Your task to perform on an android device: Search for apple airpods on bestbuy, select the first entry, add it to the cart, then select checkout. Image 0: 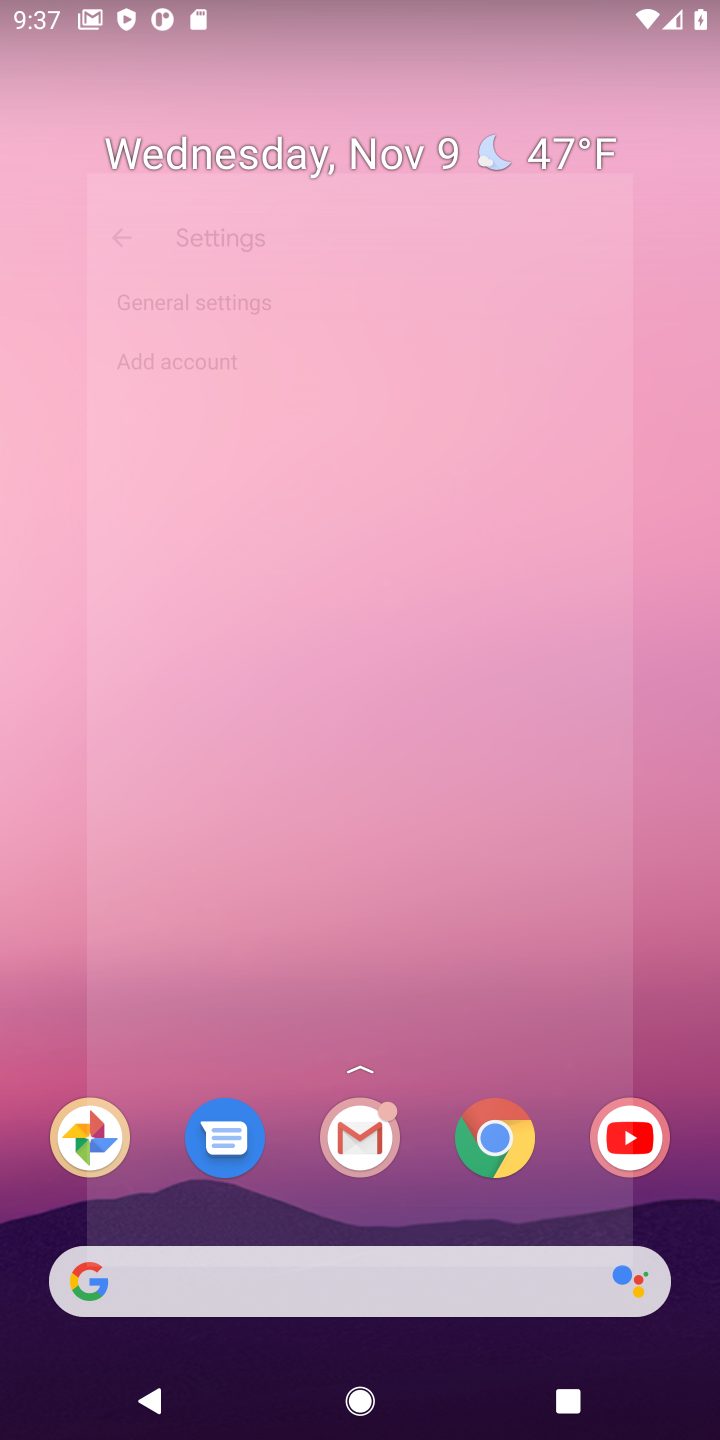
Step 0: press home button
Your task to perform on an android device: Search for apple airpods on bestbuy, select the first entry, add it to the cart, then select checkout. Image 1: 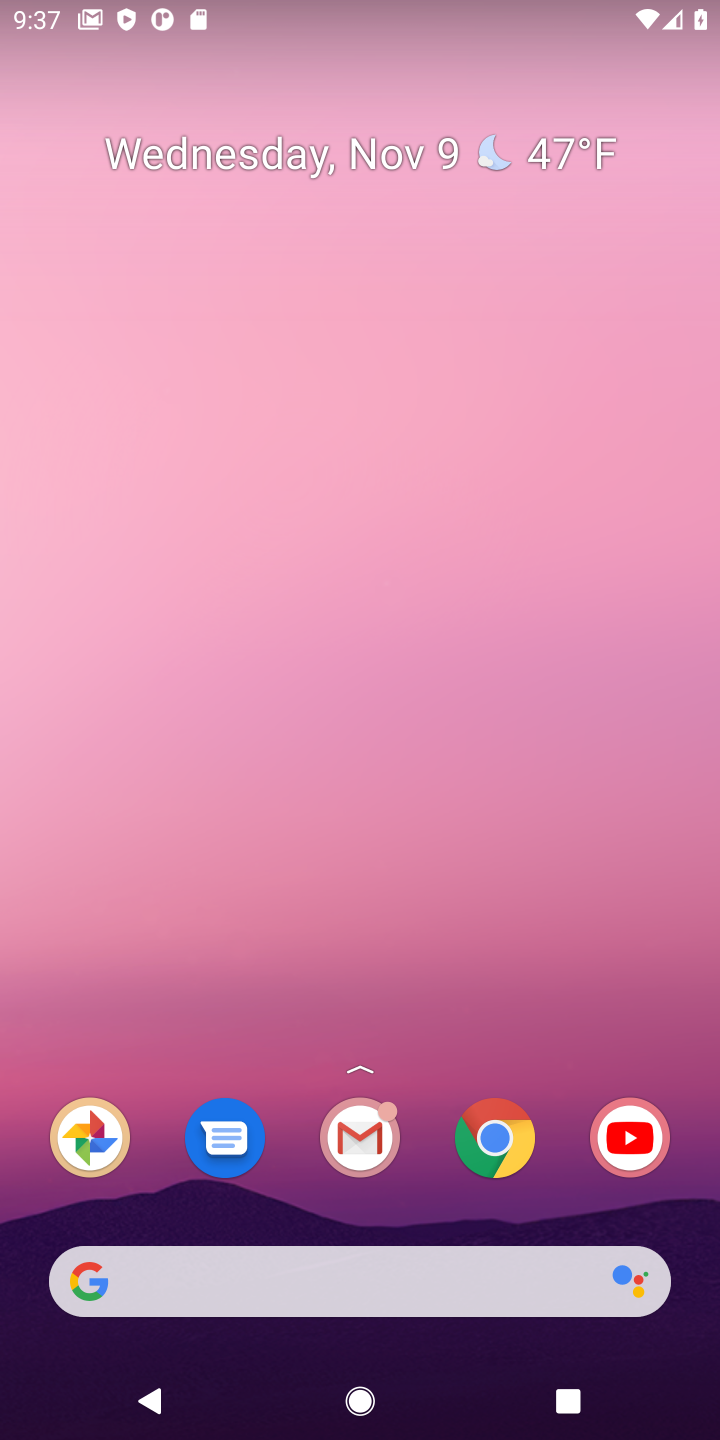
Step 1: drag from (299, 1221) to (213, 190)
Your task to perform on an android device: Search for apple airpods on bestbuy, select the first entry, add it to the cart, then select checkout. Image 2: 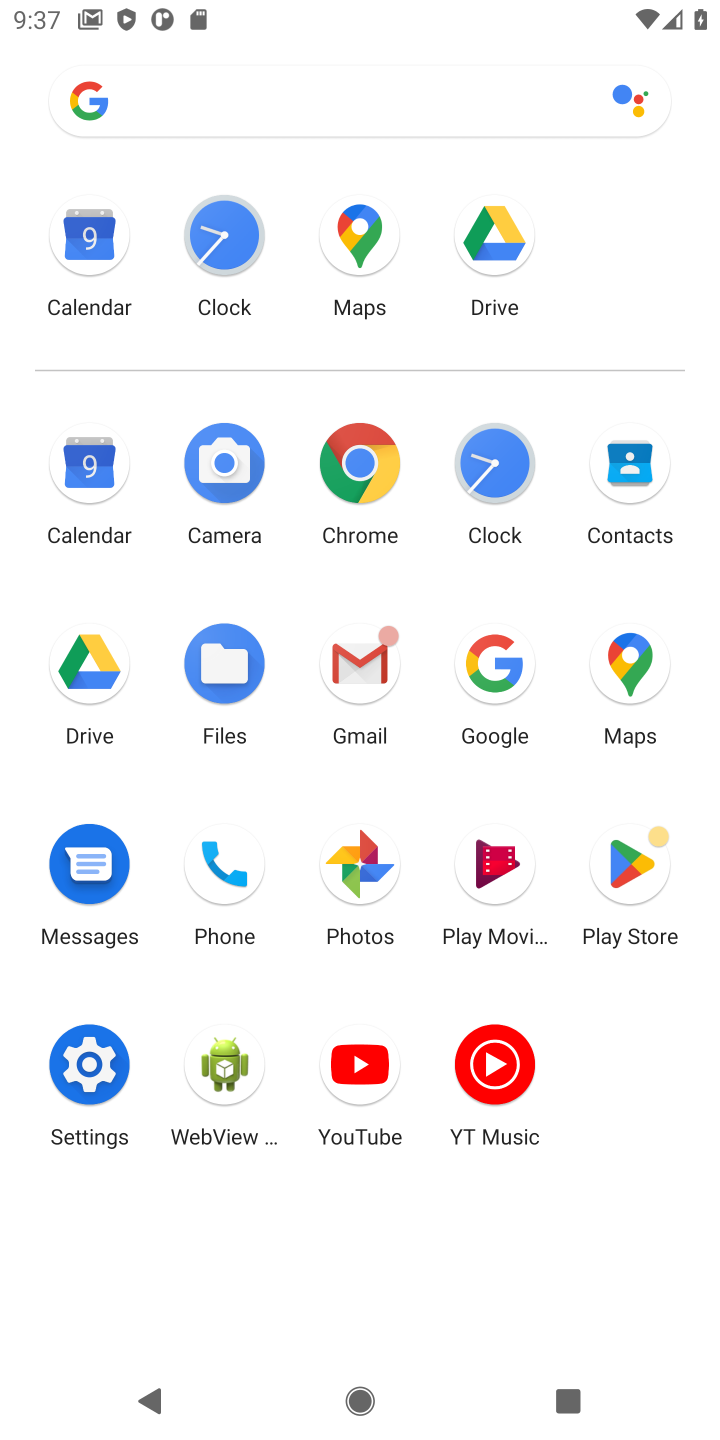
Step 2: click (367, 457)
Your task to perform on an android device: Search for apple airpods on bestbuy, select the first entry, add it to the cart, then select checkout. Image 3: 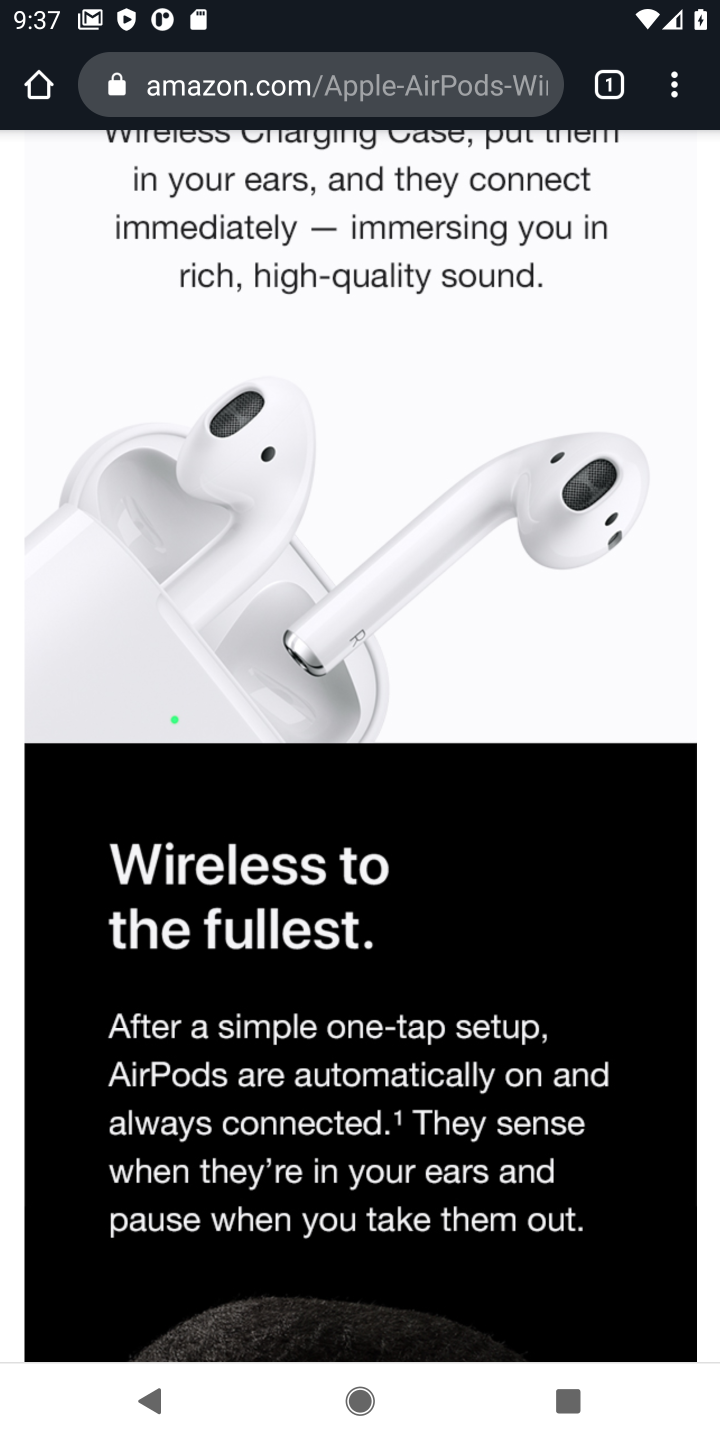
Step 3: click (328, 77)
Your task to perform on an android device: Search for apple airpods on bestbuy, select the first entry, add it to the cart, then select checkout. Image 4: 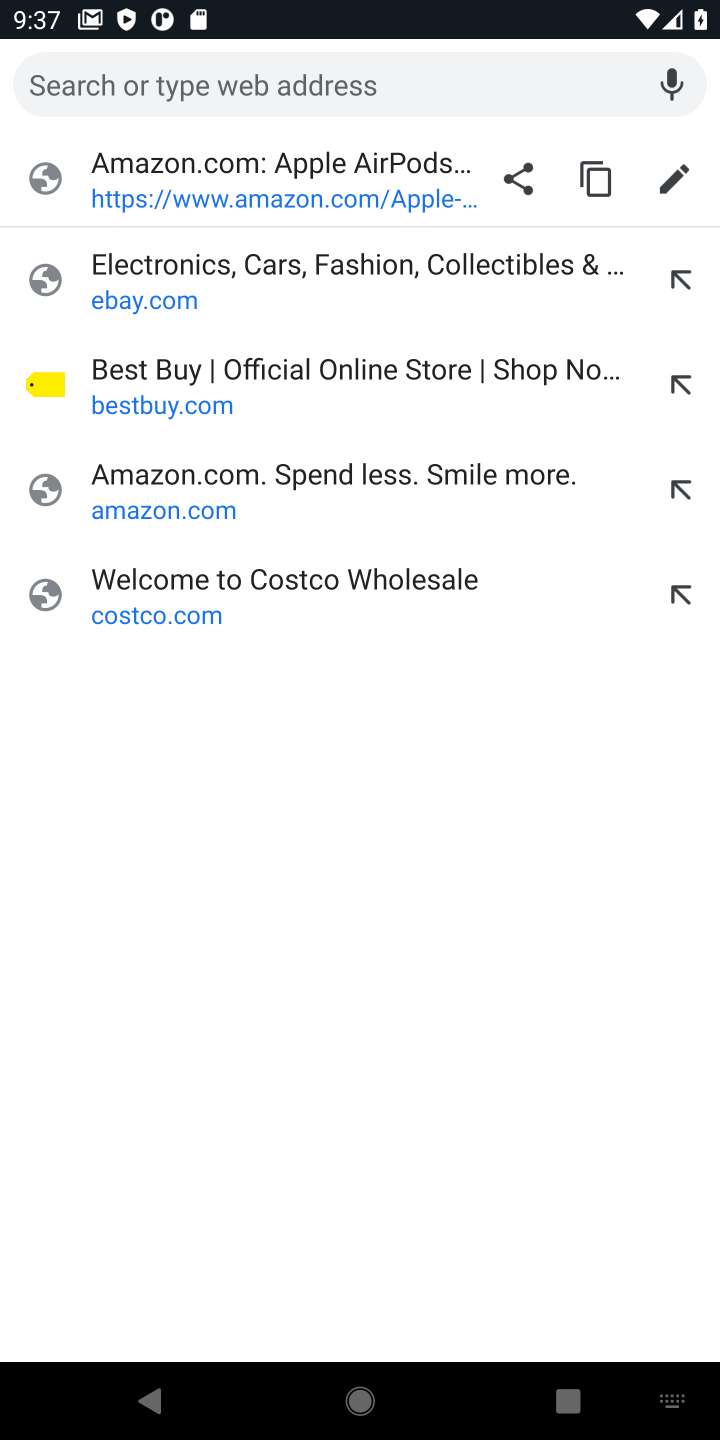
Step 4: type "bestbuy.com"
Your task to perform on an android device: Search for apple airpods on bestbuy, select the first entry, add it to the cart, then select checkout. Image 5: 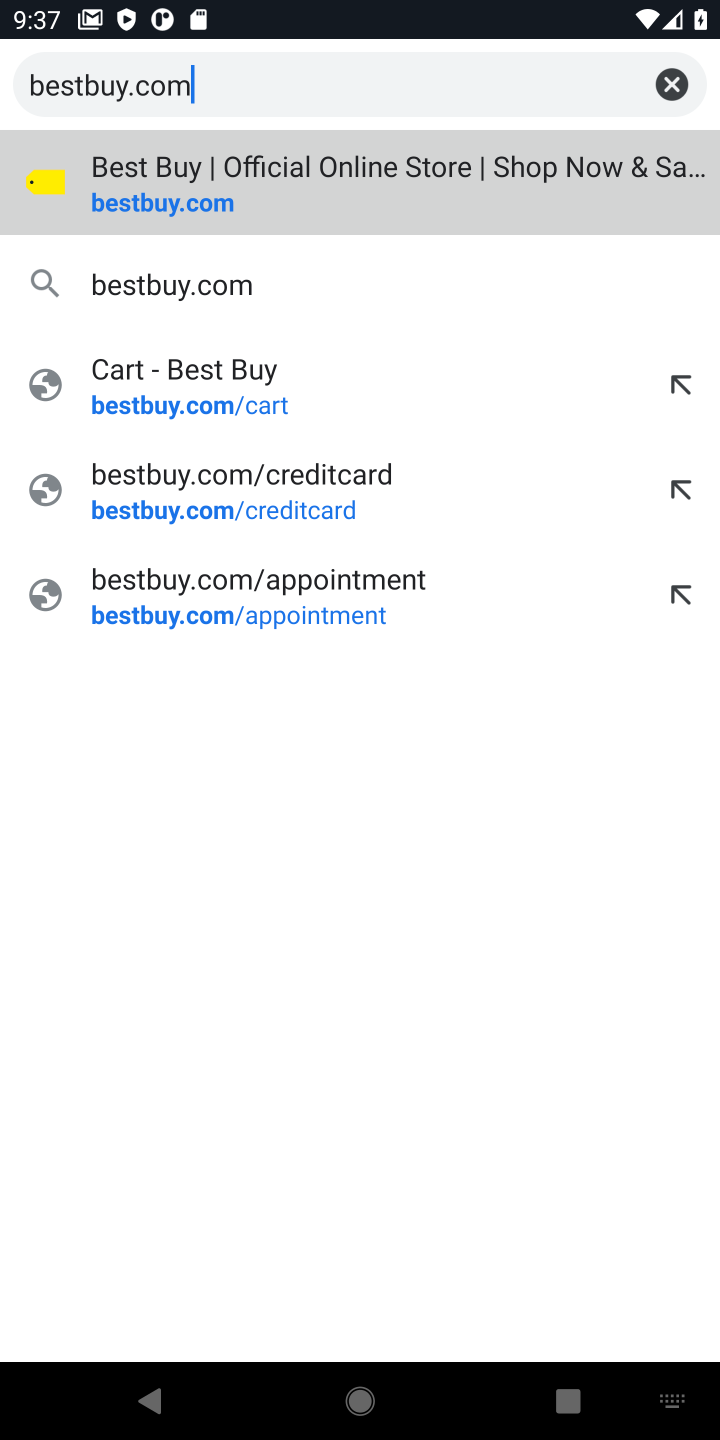
Step 5: press enter
Your task to perform on an android device: Search for apple airpods on bestbuy, select the first entry, add it to the cart, then select checkout. Image 6: 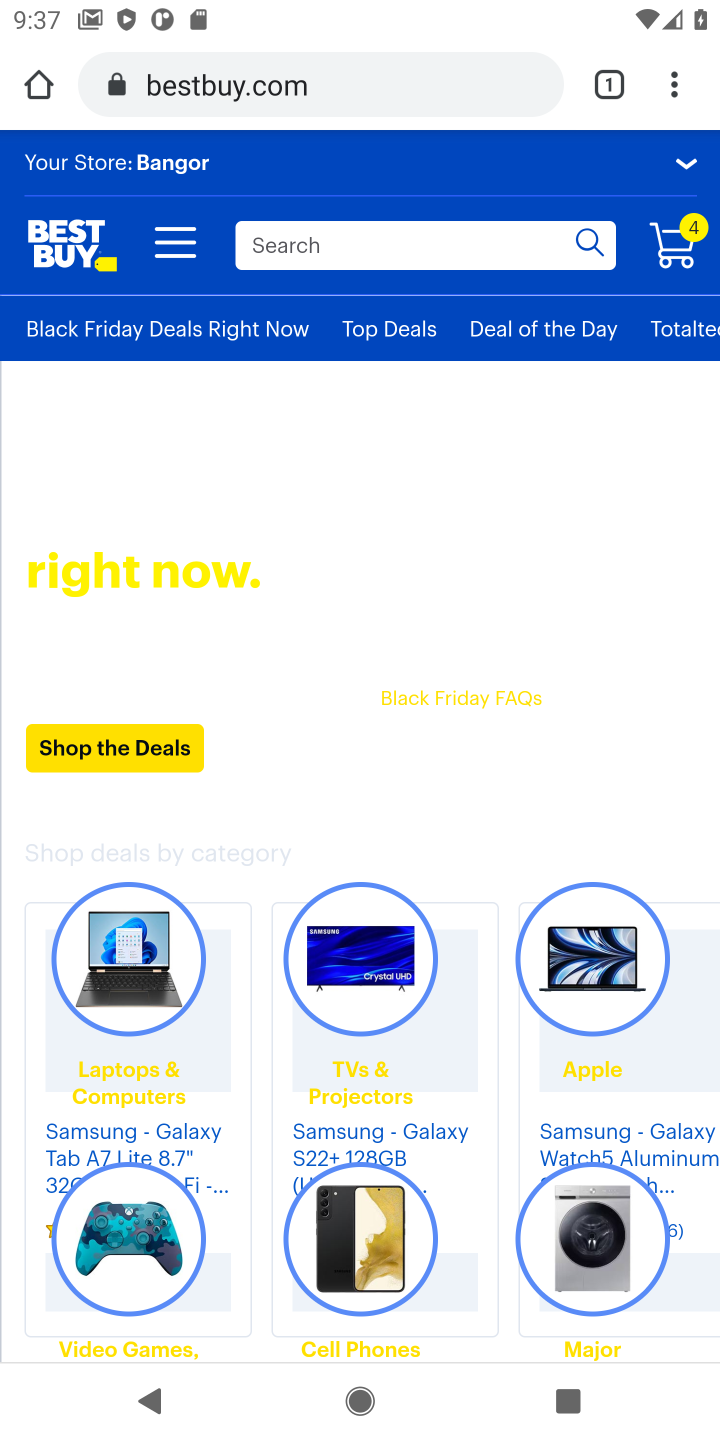
Step 6: click (395, 251)
Your task to perform on an android device: Search for apple airpods on bestbuy, select the first entry, add it to the cart, then select checkout. Image 7: 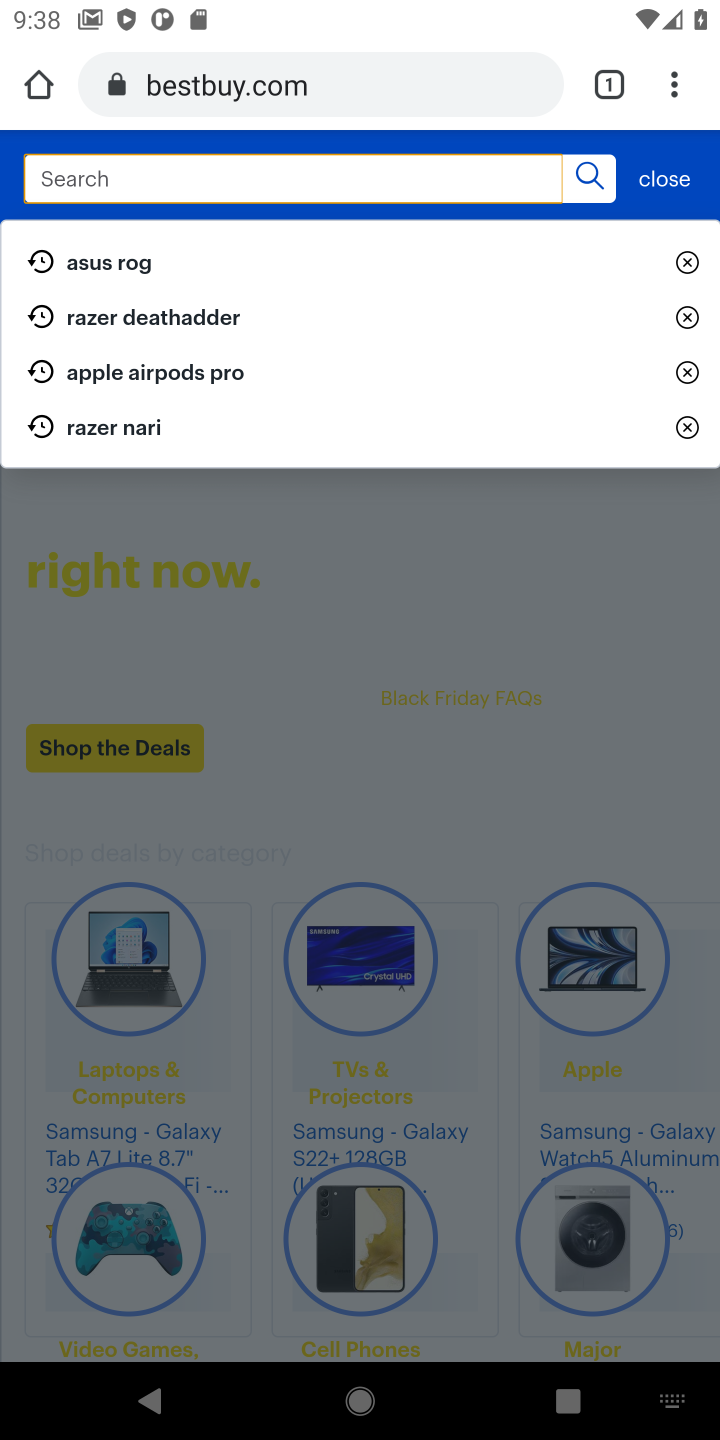
Step 7: type "apple airpods"
Your task to perform on an android device: Search for apple airpods on bestbuy, select the first entry, add it to the cart, then select checkout. Image 8: 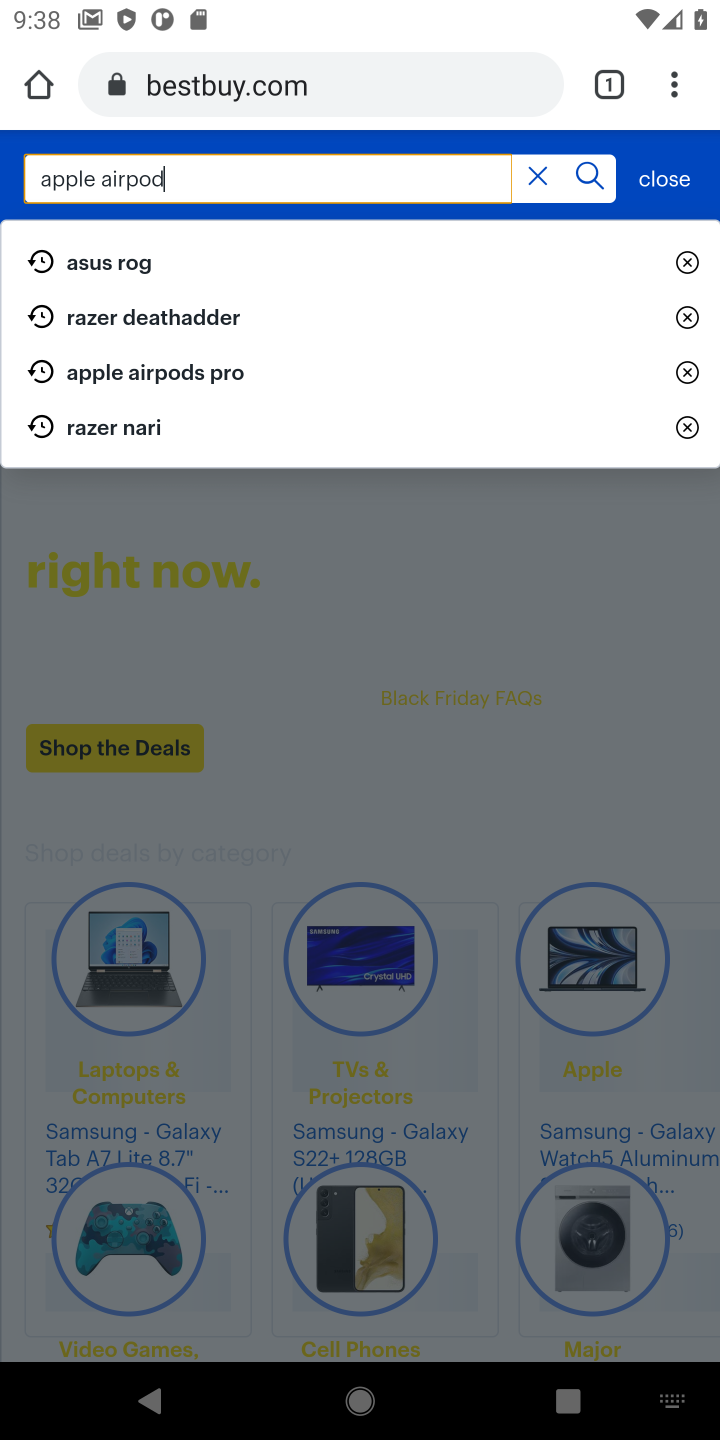
Step 8: press enter
Your task to perform on an android device: Search for apple airpods on bestbuy, select the first entry, add it to the cart, then select checkout. Image 9: 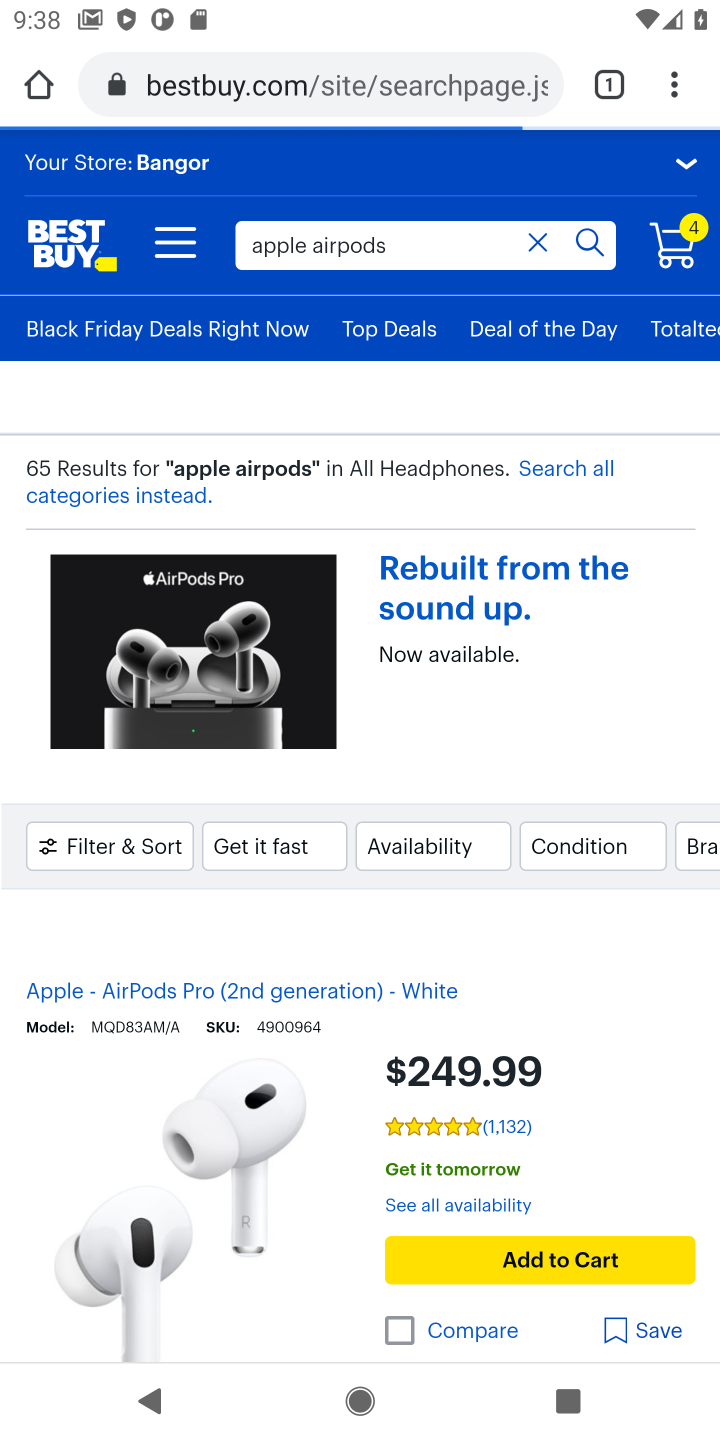
Step 9: drag from (490, 1065) to (465, 251)
Your task to perform on an android device: Search for apple airpods on bestbuy, select the first entry, add it to the cart, then select checkout. Image 10: 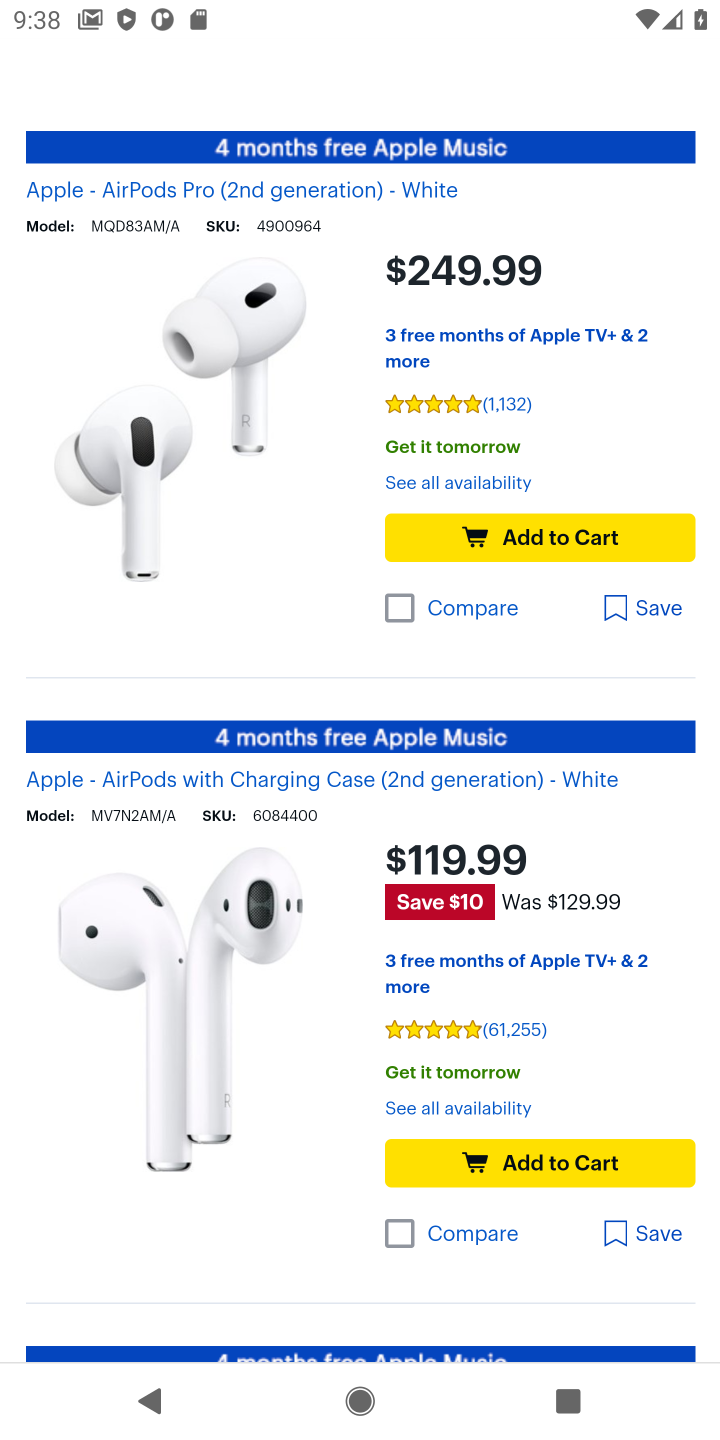
Step 10: click (574, 460)
Your task to perform on an android device: Search for apple airpods on bestbuy, select the first entry, add it to the cart, then select checkout. Image 11: 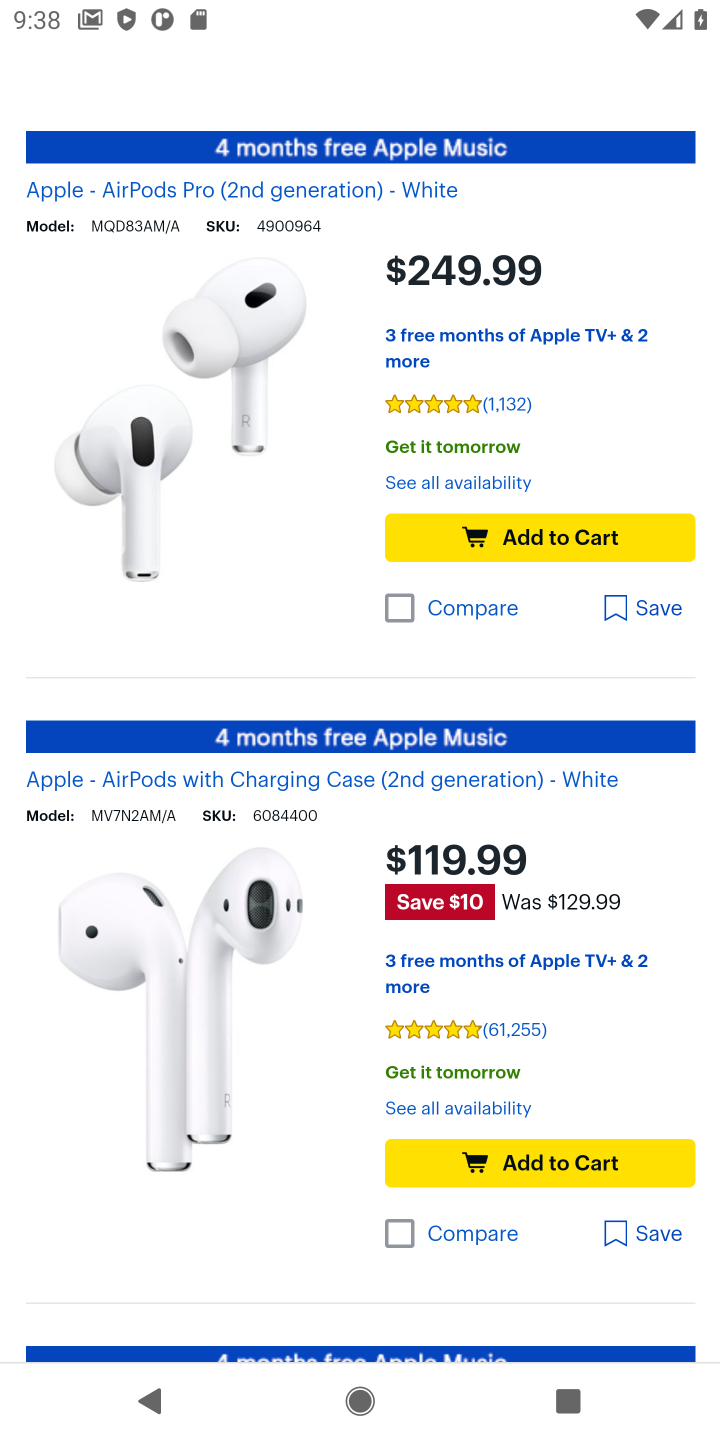
Step 11: click (587, 540)
Your task to perform on an android device: Search for apple airpods on bestbuy, select the first entry, add it to the cart, then select checkout. Image 12: 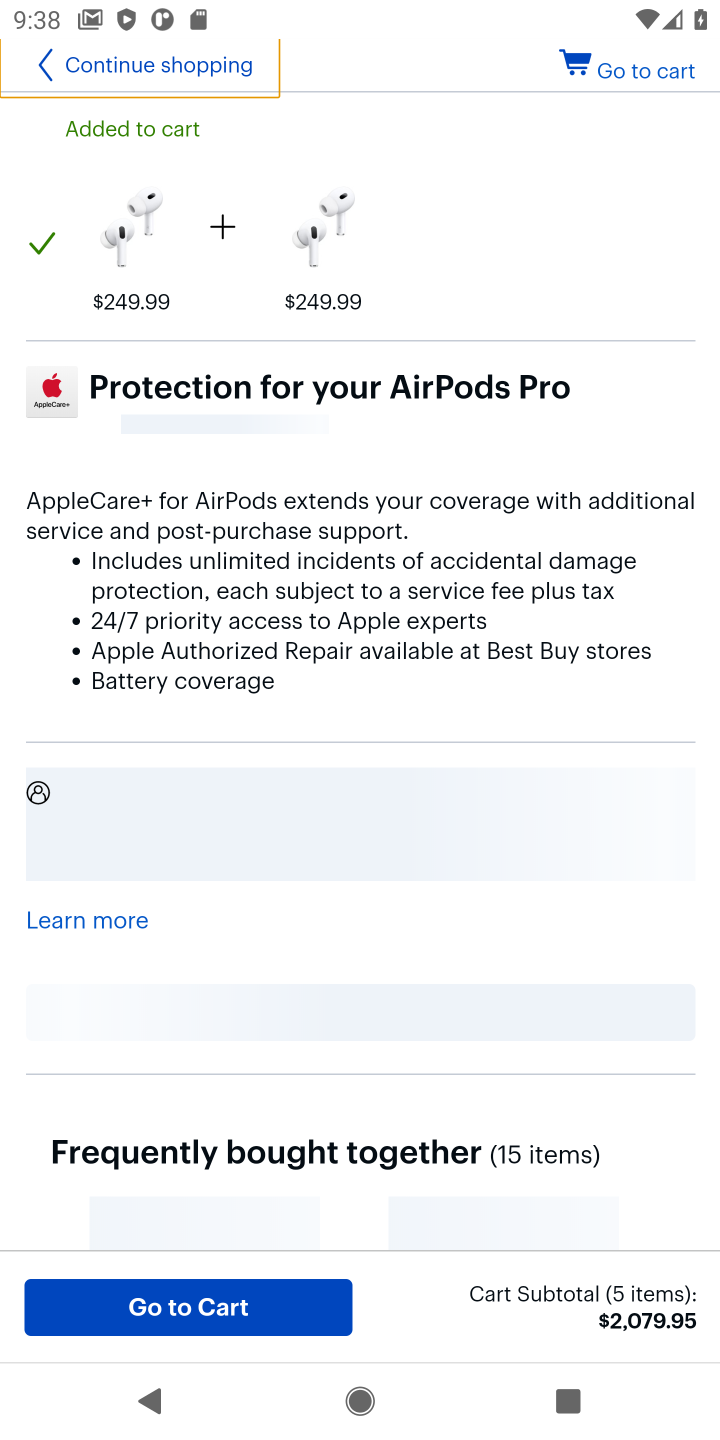
Step 12: click (156, 1301)
Your task to perform on an android device: Search for apple airpods on bestbuy, select the first entry, add it to the cart, then select checkout. Image 13: 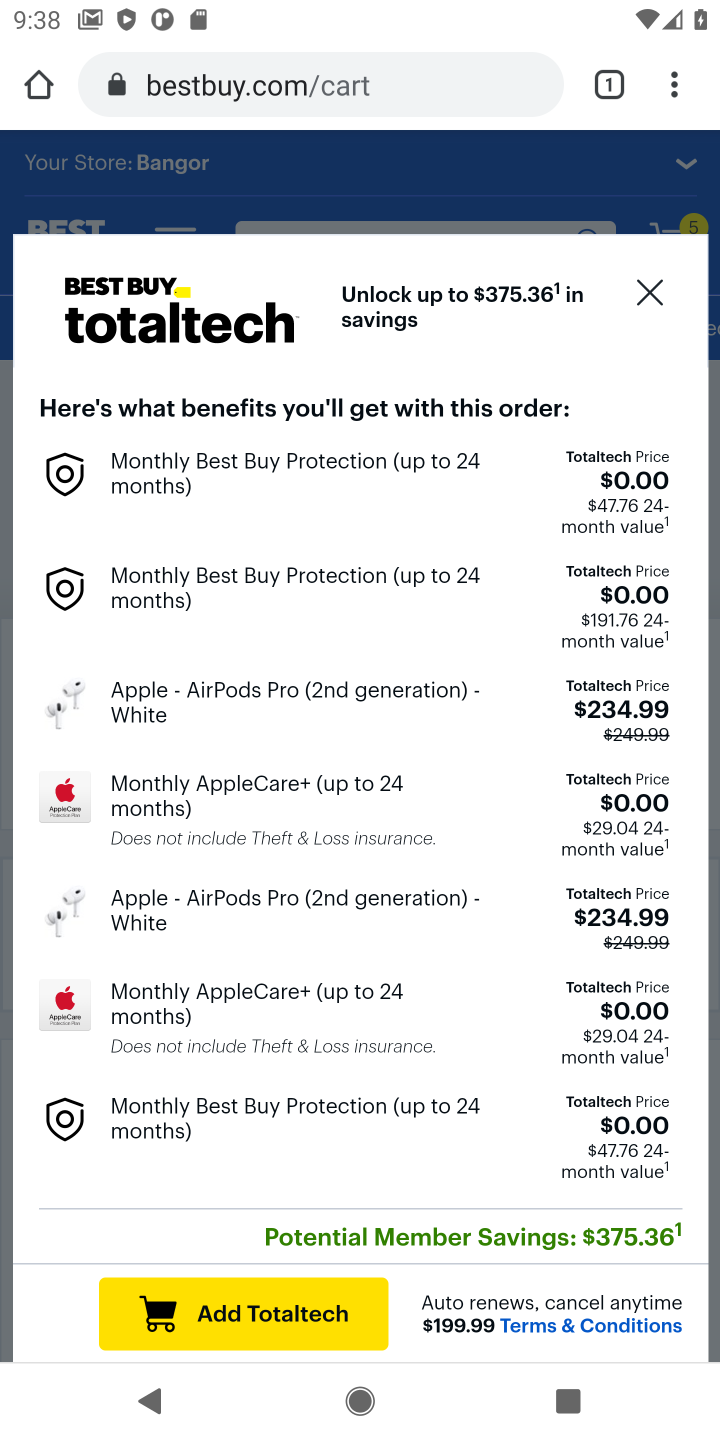
Step 13: click (649, 292)
Your task to perform on an android device: Search for apple airpods on bestbuy, select the first entry, add it to the cart, then select checkout. Image 14: 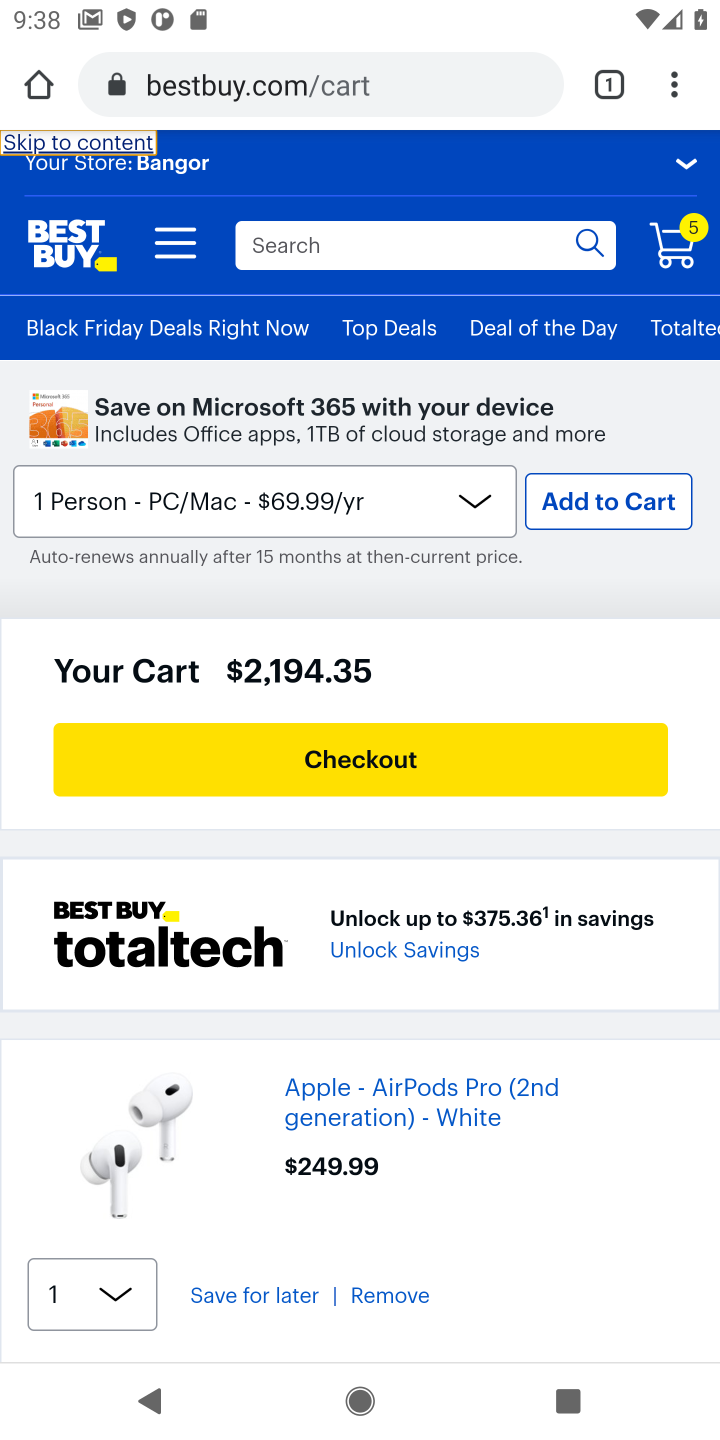
Step 14: click (415, 750)
Your task to perform on an android device: Search for apple airpods on bestbuy, select the first entry, add it to the cart, then select checkout. Image 15: 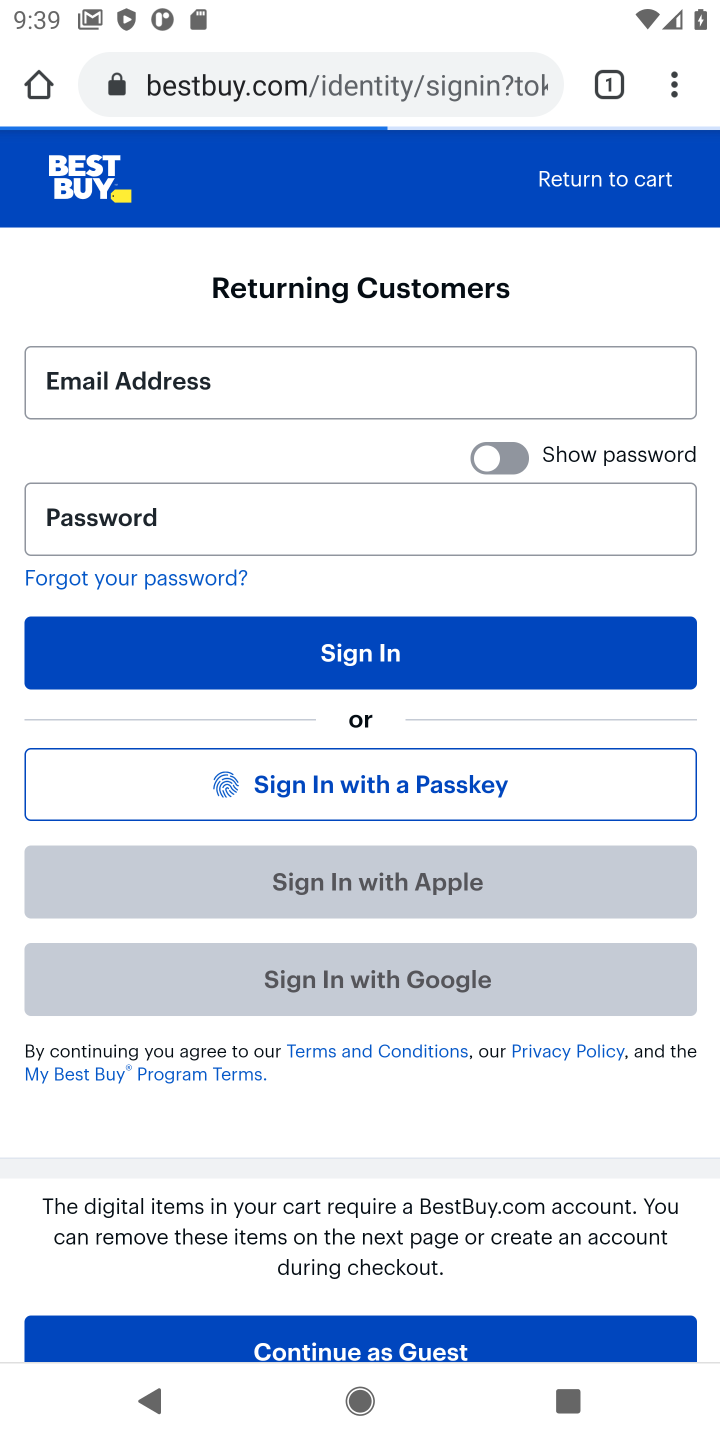
Step 15: task complete